Your task to perform on an android device: Open battery settings Image 0: 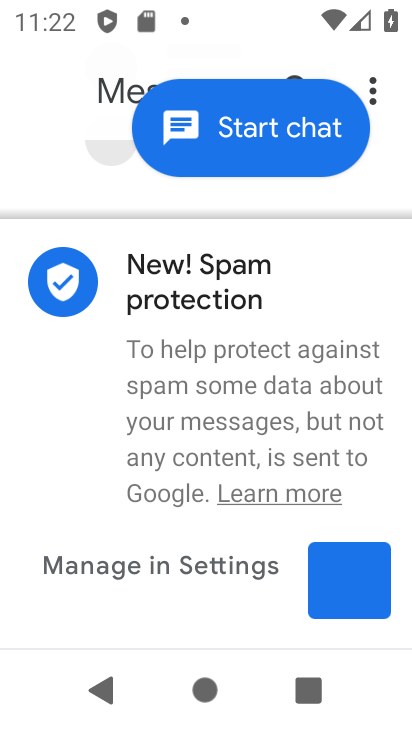
Step 0: press home button
Your task to perform on an android device: Open battery settings Image 1: 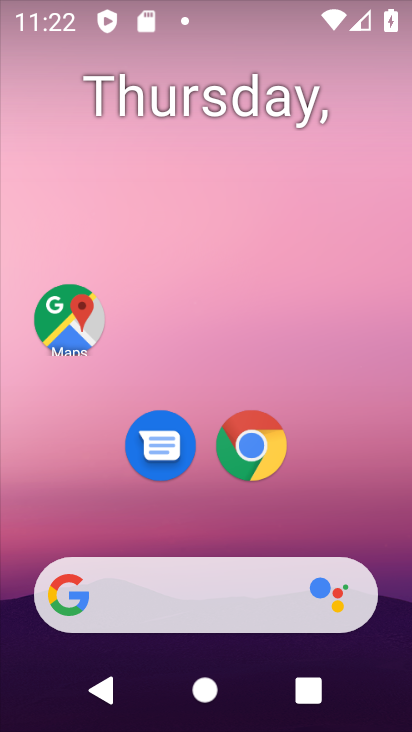
Step 1: drag from (219, 517) to (233, 53)
Your task to perform on an android device: Open battery settings Image 2: 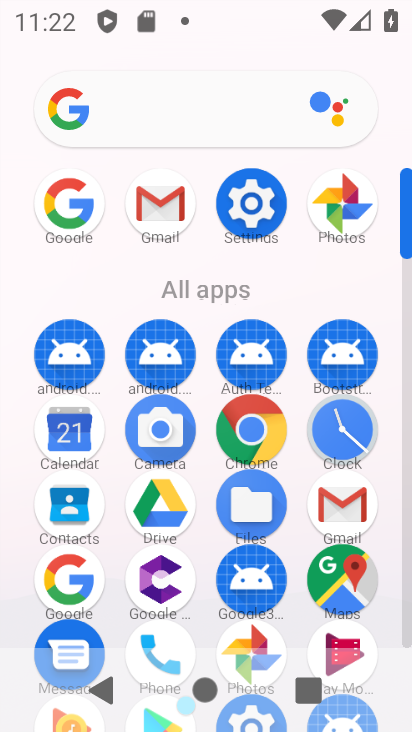
Step 2: click (252, 197)
Your task to perform on an android device: Open battery settings Image 3: 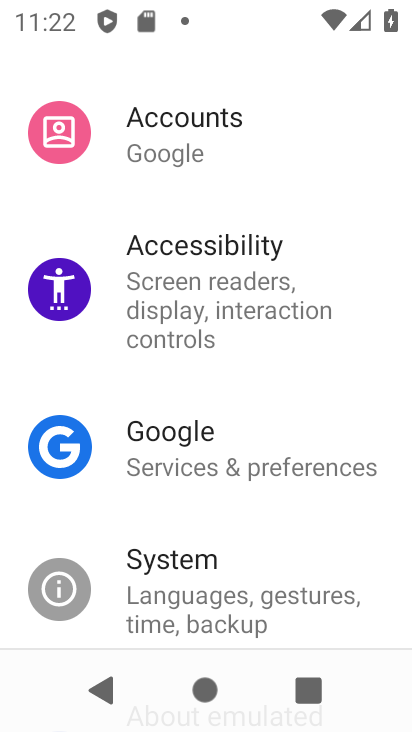
Step 3: drag from (235, 192) to (268, 534)
Your task to perform on an android device: Open battery settings Image 4: 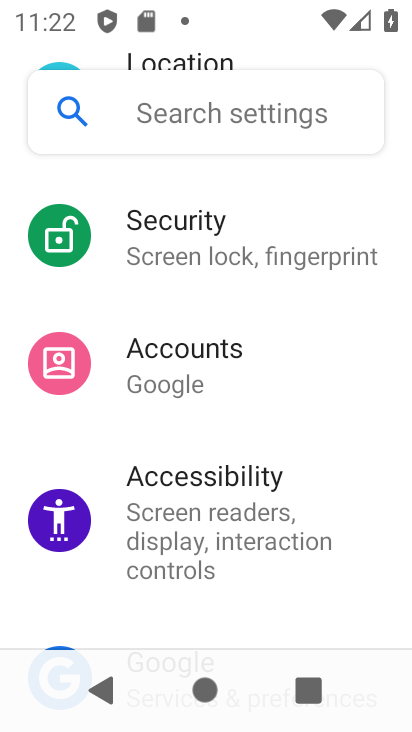
Step 4: drag from (268, 271) to (275, 442)
Your task to perform on an android device: Open battery settings Image 5: 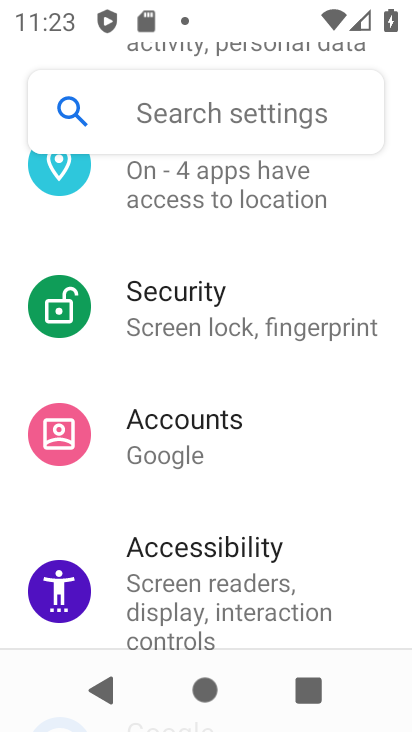
Step 5: drag from (264, 189) to (271, 353)
Your task to perform on an android device: Open battery settings Image 6: 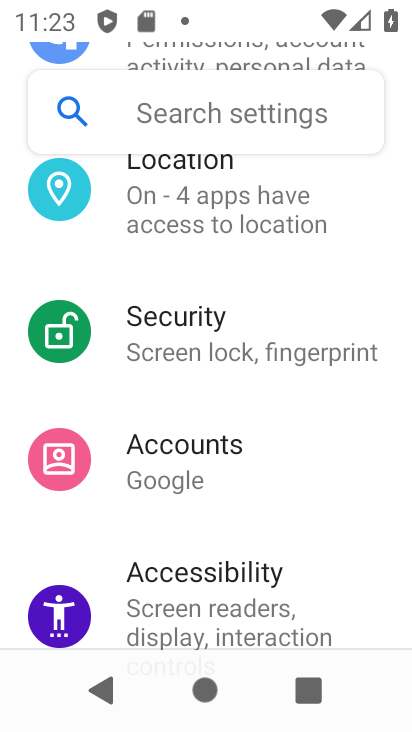
Step 6: drag from (244, 175) to (244, 330)
Your task to perform on an android device: Open battery settings Image 7: 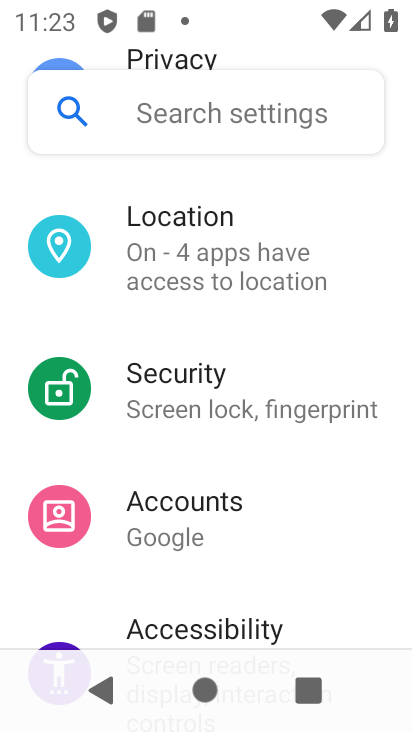
Step 7: drag from (244, 241) to (243, 453)
Your task to perform on an android device: Open battery settings Image 8: 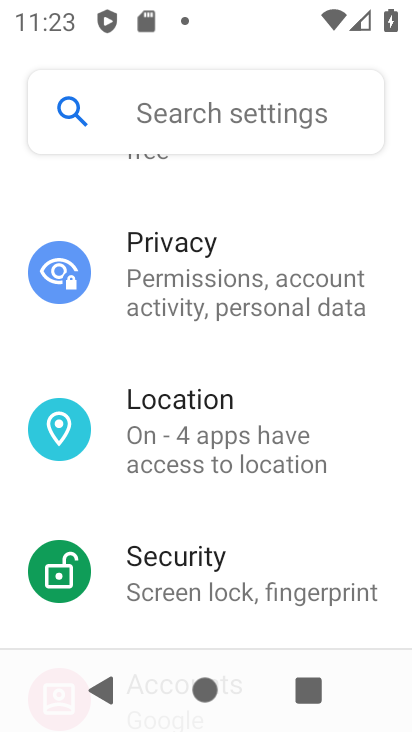
Step 8: drag from (271, 332) to (261, 502)
Your task to perform on an android device: Open battery settings Image 9: 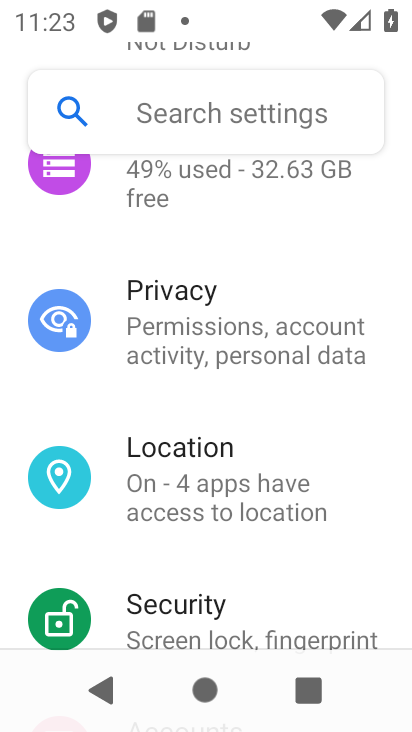
Step 9: drag from (243, 244) to (241, 573)
Your task to perform on an android device: Open battery settings Image 10: 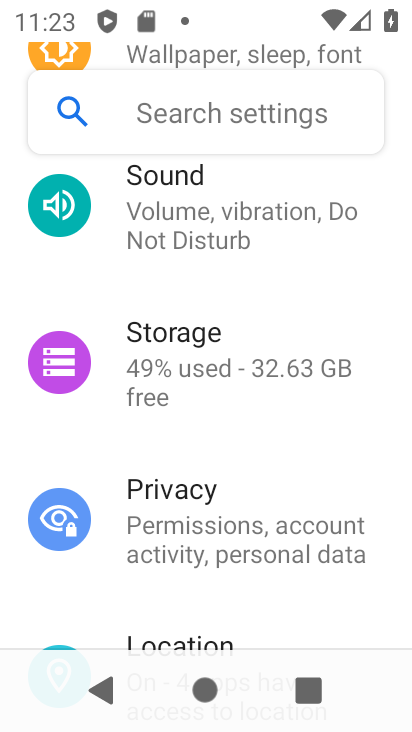
Step 10: drag from (242, 267) to (242, 437)
Your task to perform on an android device: Open battery settings Image 11: 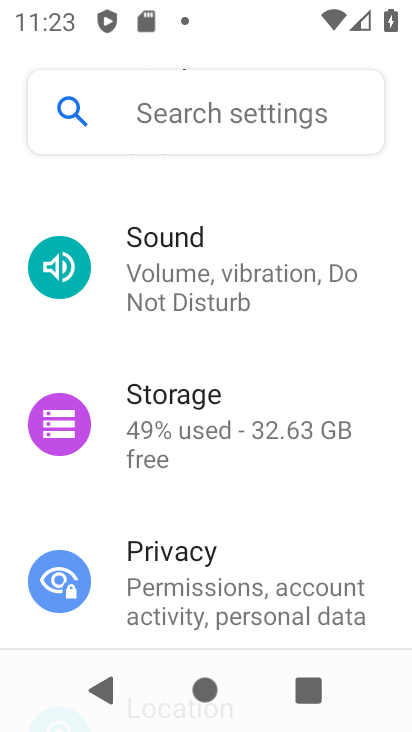
Step 11: drag from (264, 236) to (257, 519)
Your task to perform on an android device: Open battery settings Image 12: 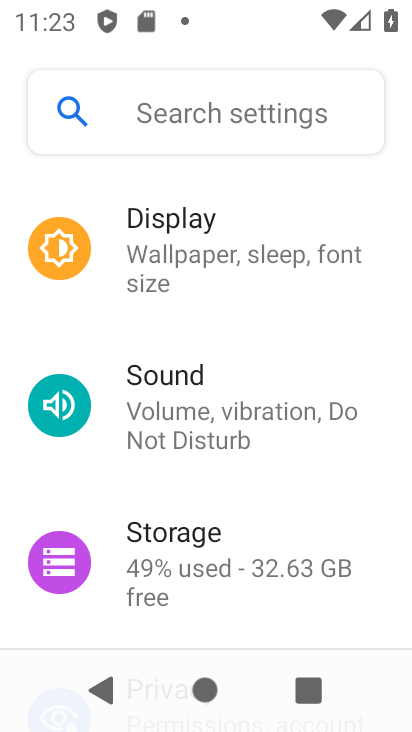
Step 12: drag from (223, 245) to (223, 484)
Your task to perform on an android device: Open battery settings Image 13: 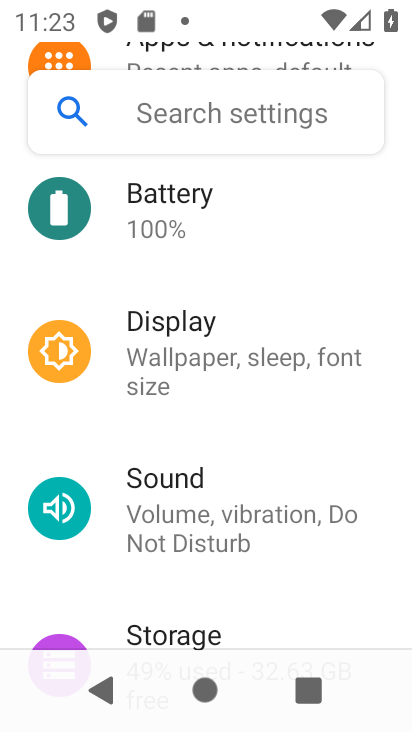
Step 13: click (210, 223)
Your task to perform on an android device: Open battery settings Image 14: 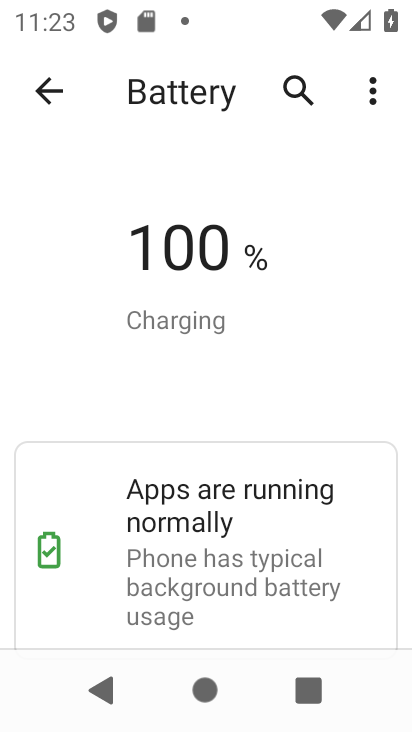
Step 14: click (372, 105)
Your task to perform on an android device: Open battery settings Image 15: 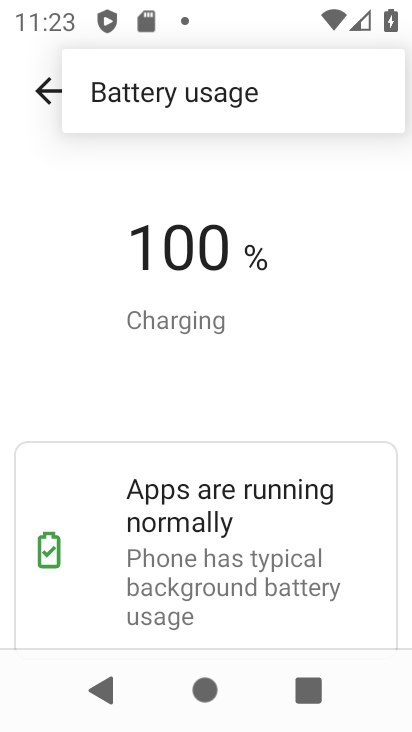
Step 15: click (269, 412)
Your task to perform on an android device: Open battery settings Image 16: 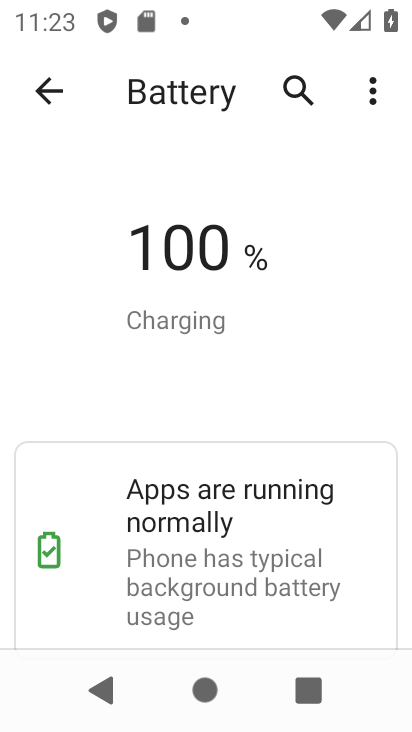
Step 16: task complete